Your task to perform on an android device: Open Amazon Image 0: 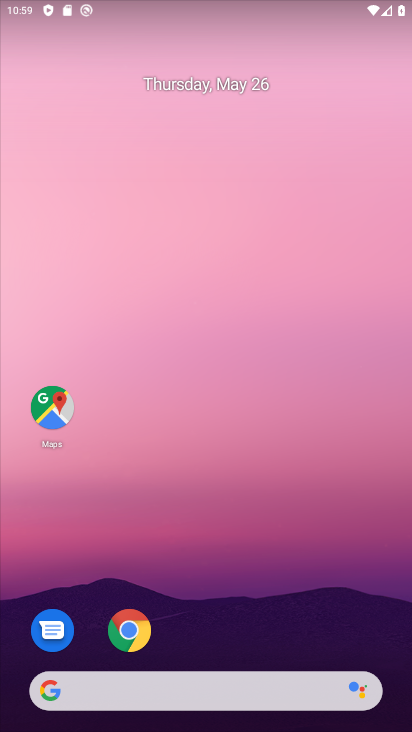
Step 0: click (131, 629)
Your task to perform on an android device: Open Amazon Image 1: 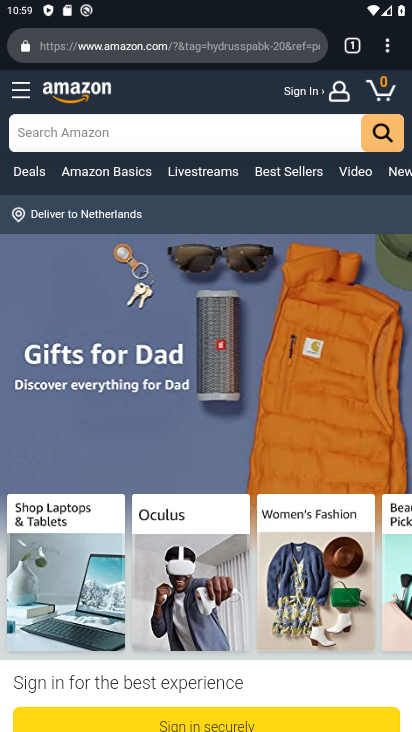
Step 1: task complete